Your task to perform on an android device: empty trash in the gmail app Image 0: 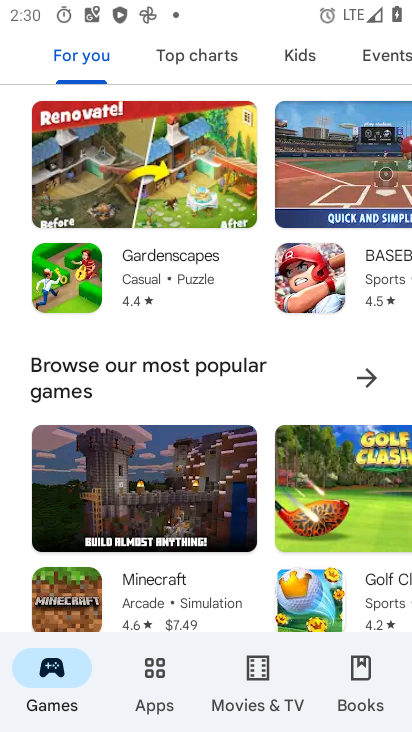
Step 0: press home button
Your task to perform on an android device: empty trash in the gmail app Image 1: 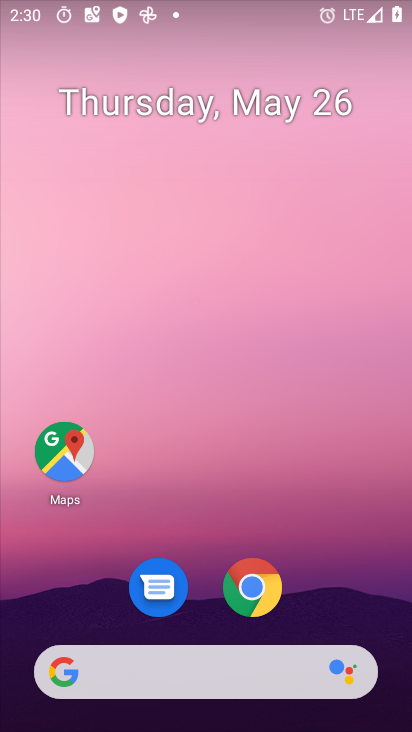
Step 1: drag from (355, 580) to (370, 111)
Your task to perform on an android device: empty trash in the gmail app Image 2: 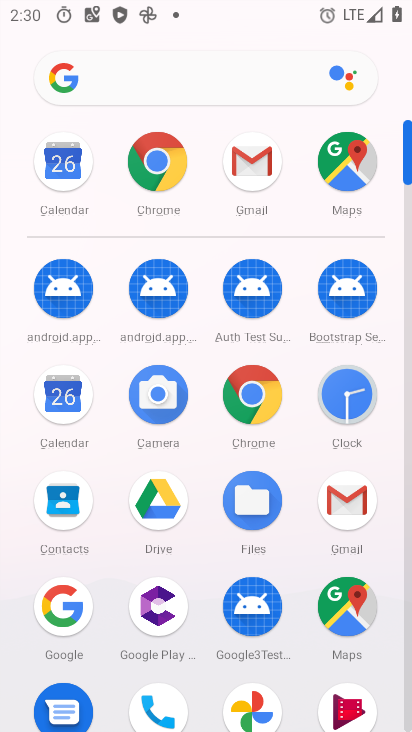
Step 2: click (349, 503)
Your task to perform on an android device: empty trash in the gmail app Image 3: 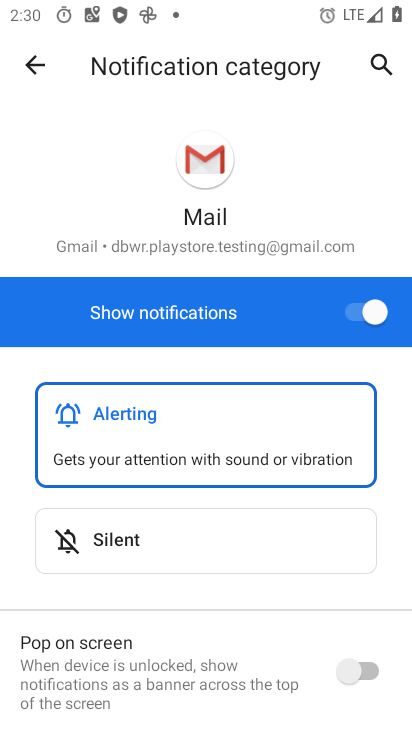
Step 3: press back button
Your task to perform on an android device: empty trash in the gmail app Image 4: 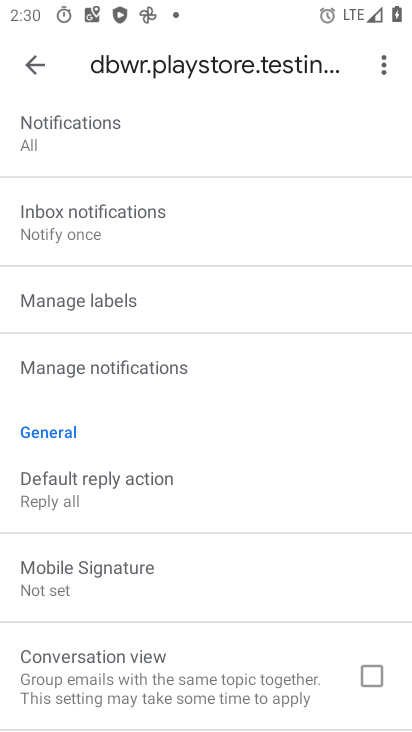
Step 4: drag from (267, 242) to (242, 366)
Your task to perform on an android device: empty trash in the gmail app Image 5: 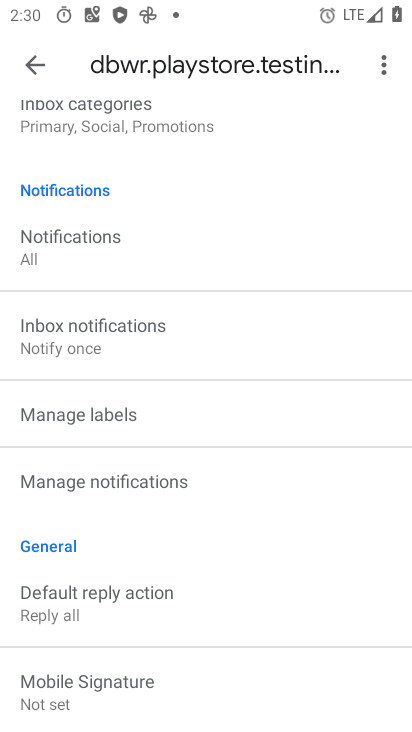
Step 5: click (21, 67)
Your task to perform on an android device: empty trash in the gmail app Image 6: 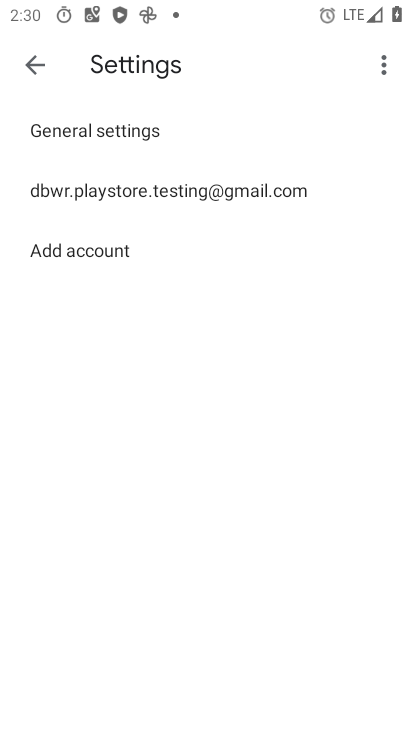
Step 6: click (41, 73)
Your task to perform on an android device: empty trash in the gmail app Image 7: 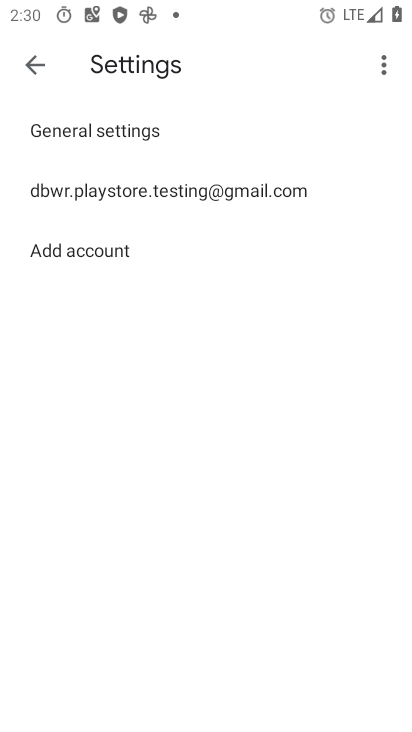
Step 7: click (40, 73)
Your task to perform on an android device: empty trash in the gmail app Image 8: 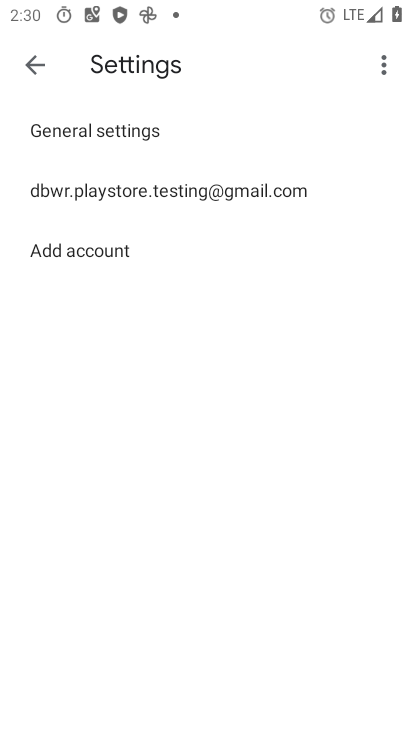
Step 8: press back button
Your task to perform on an android device: empty trash in the gmail app Image 9: 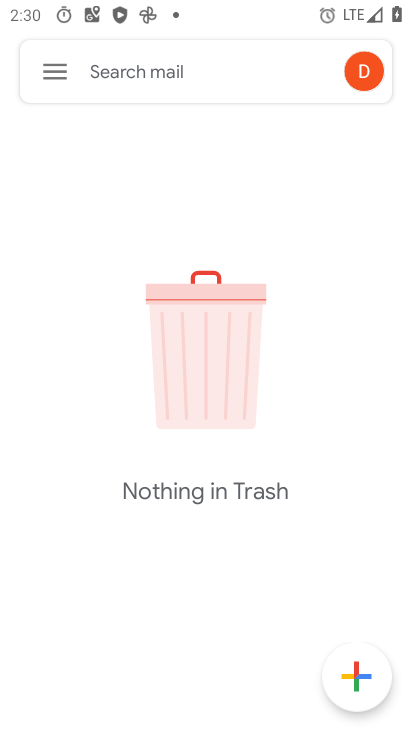
Step 9: click (52, 79)
Your task to perform on an android device: empty trash in the gmail app Image 10: 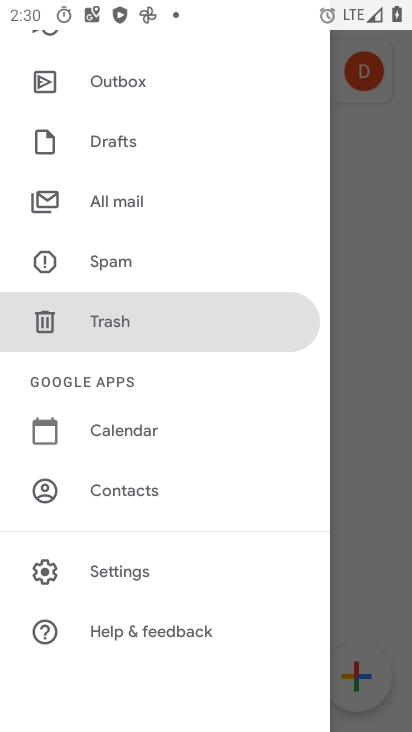
Step 10: drag from (223, 521) to (217, 235)
Your task to perform on an android device: empty trash in the gmail app Image 11: 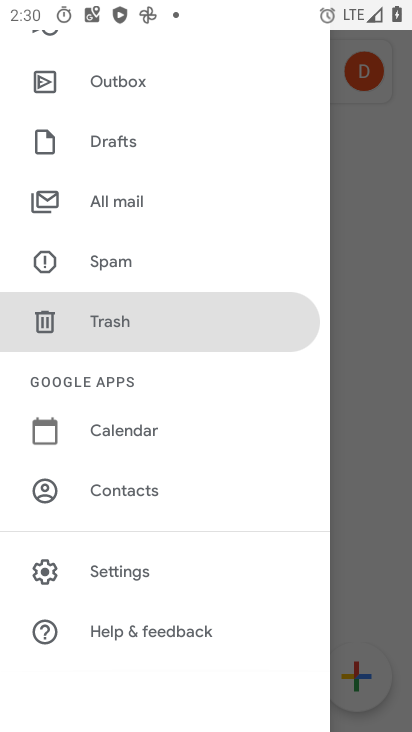
Step 11: drag from (254, 91) to (216, 284)
Your task to perform on an android device: empty trash in the gmail app Image 12: 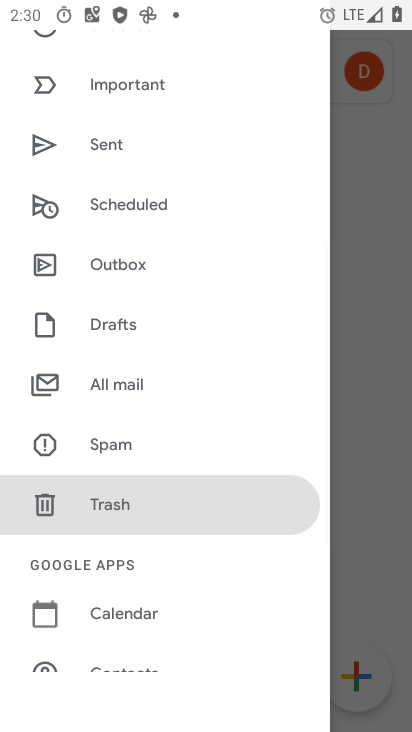
Step 12: drag from (241, 136) to (226, 315)
Your task to perform on an android device: empty trash in the gmail app Image 13: 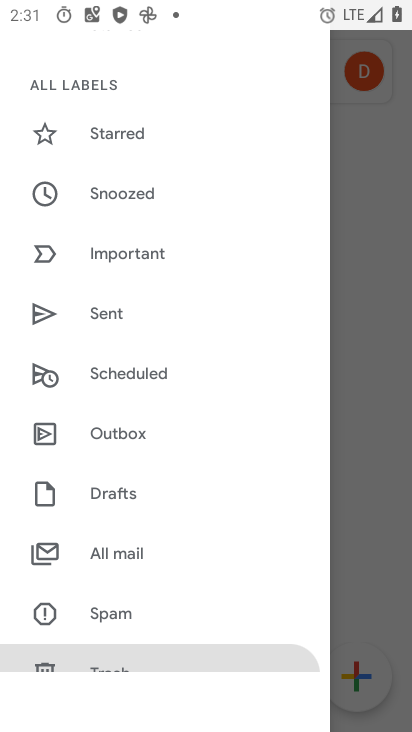
Step 13: drag from (237, 134) to (233, 315)
Your task to perform on an android device: empty trash in the gmail app Image 14: 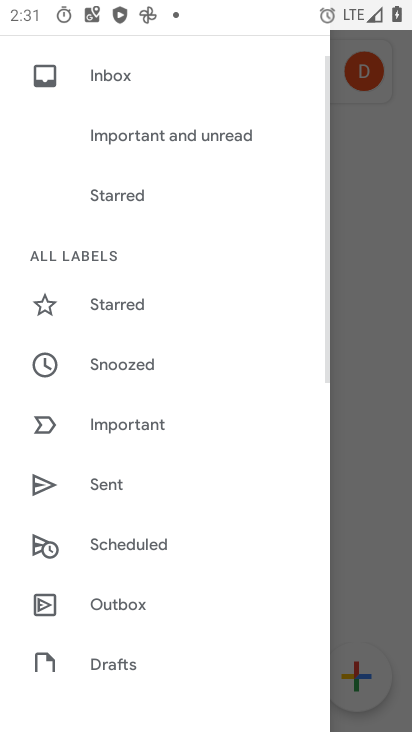
Step 14: drag from (248, 209) to (225, 356)
Your task to perform on an android device: empty trash in the gmail app Image 15: 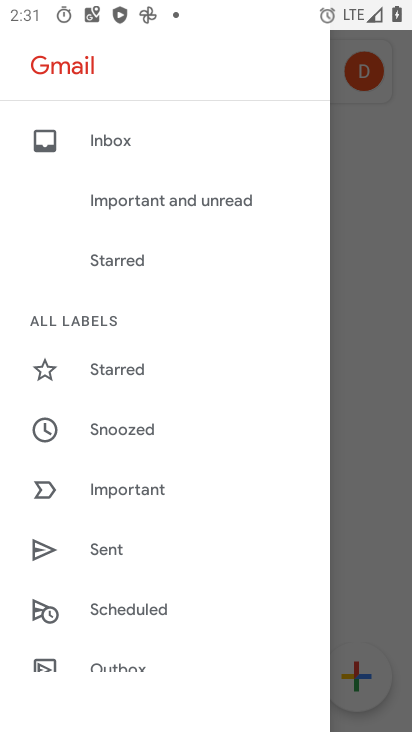
Step 15: drag from (225, 381) to (245, 281)
Your task to perform on an android device: empty trash in the gmail app Image 16: 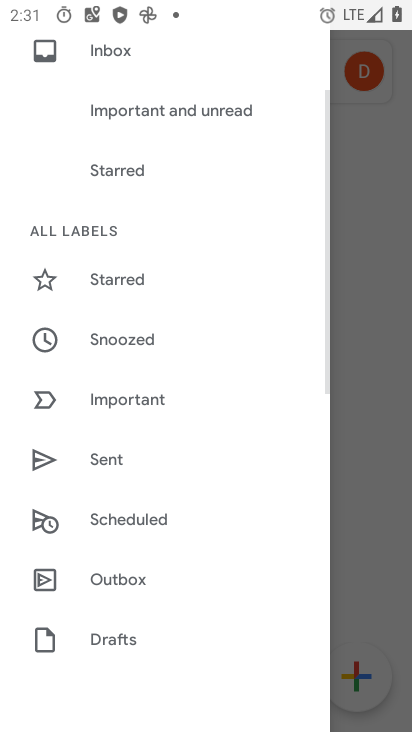
Step 16: drag from (230, 411) to (244, 286)
Your task to perform on an android device: empty trash in the gmail app Image 17: 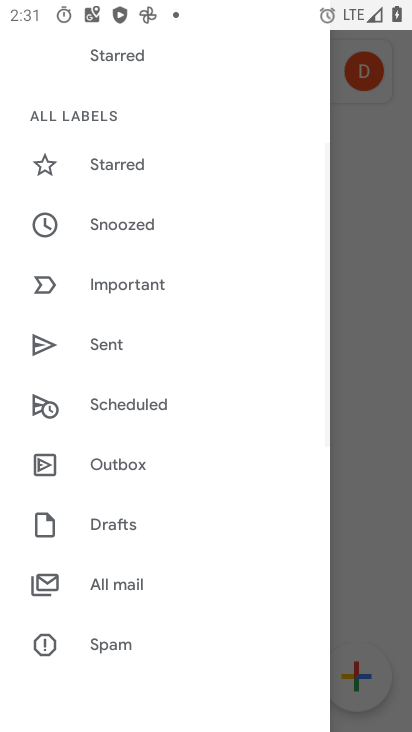
Step 17: drag from (227, 416) to (227, 305)
Your task to perform on an android device: empty trash in the gmail app Image 18: 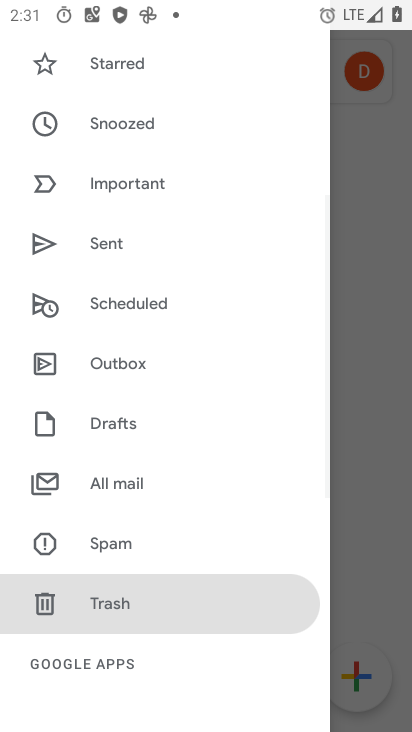
Step 18: drag from (210, 446) to (219, 241)
Your task to perform on an android device: empty trash in the gmail app Image 19: 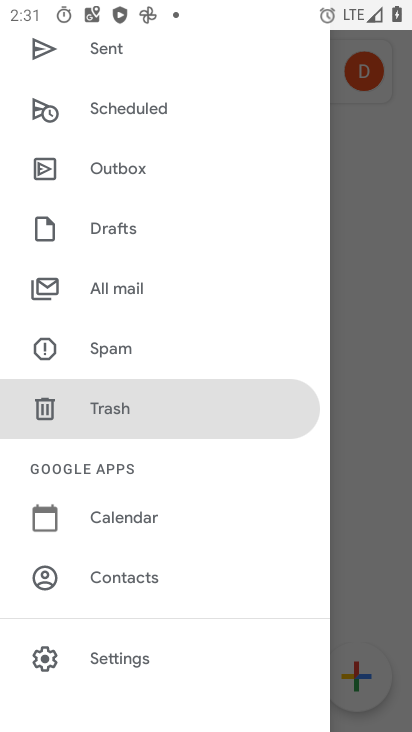
Step 19: drag from (206, 501) to (251, 244)
Your task to perform on an android device: empty trash in the gmail app Image 20: 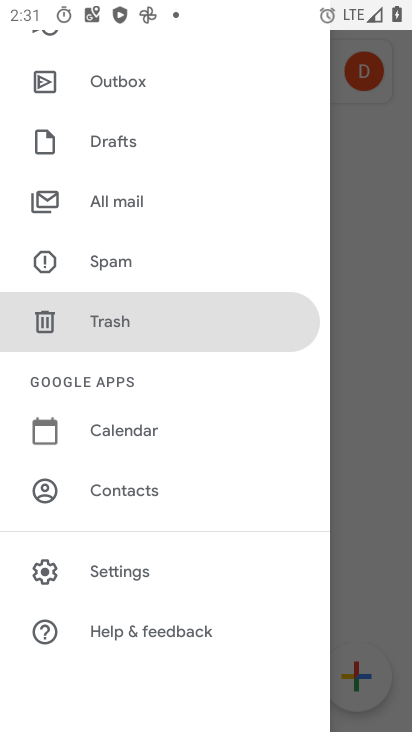
Step 20: click (189, 320)
Your task to perform on an android device: empty trash in the gmail app Image 21: 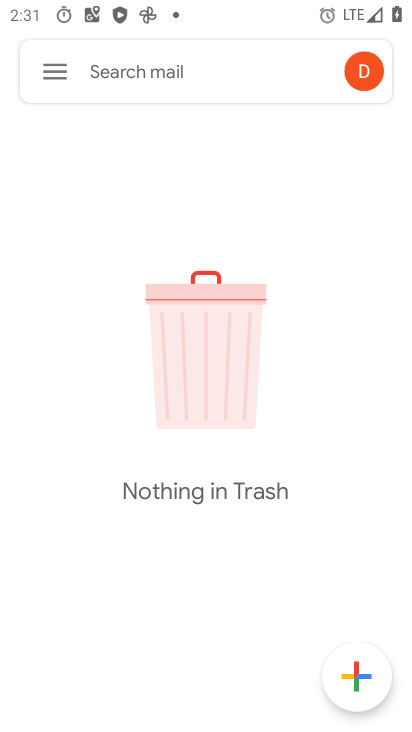
Step 21: task complete